Your task to perform on an android device: Open Maps and search for coffee Image 0: 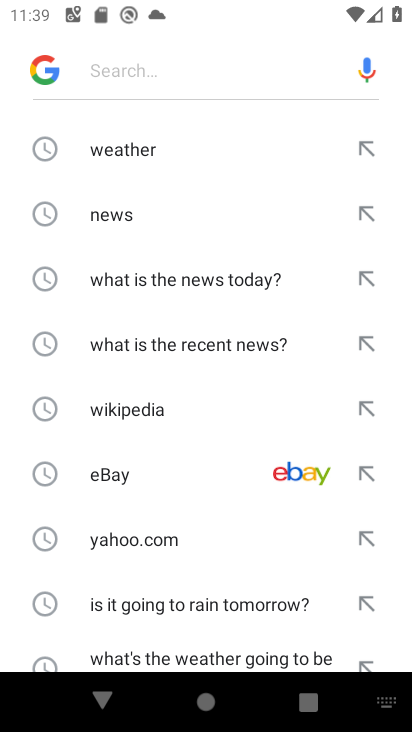
Step 0: press home button
Your task to perform on an android device: Open Maps and search for coffee Image 1: 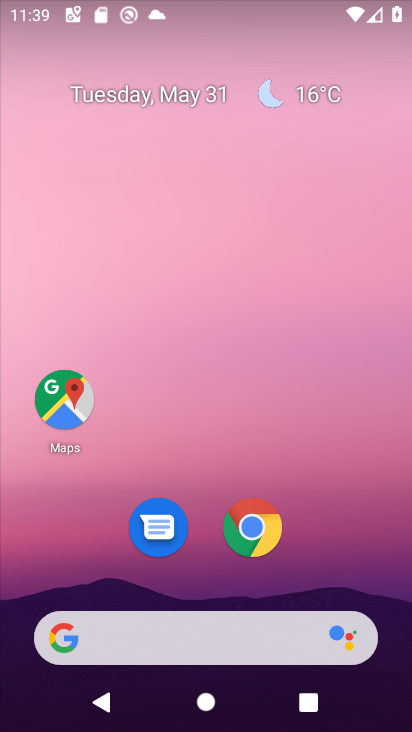
Step 1: click (64, 406)
Your task to perform on an android device: Open Maps and search for coffee Image 2: 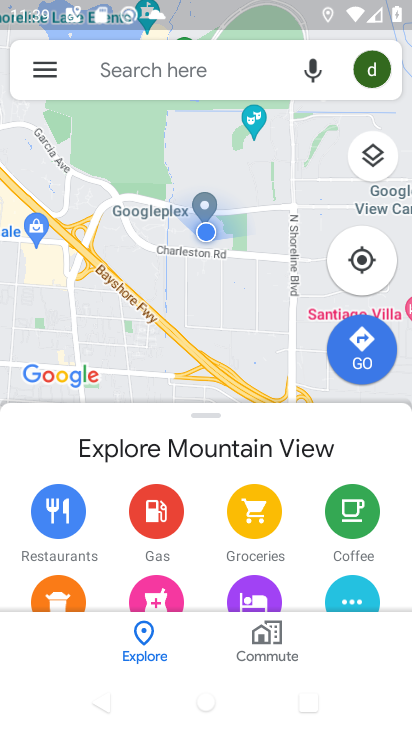
Step 2: click (120, 78)
Your task to perform on an android device: Open Maps and search for coffee Image 3: 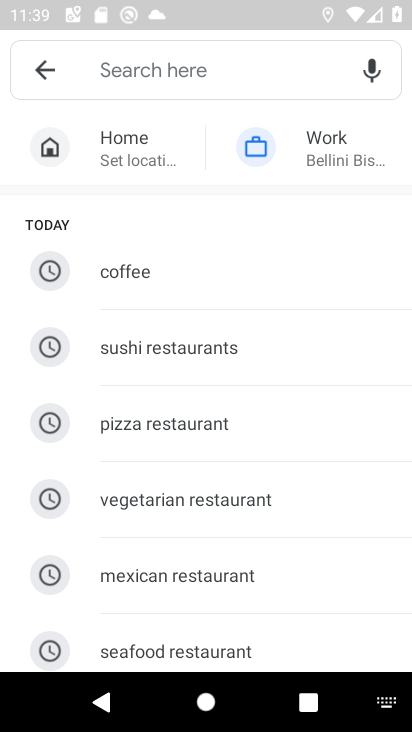
Step 3: click (113, 274)
Your task to perform on an android device: Open Maps and search for coffee Image 4: 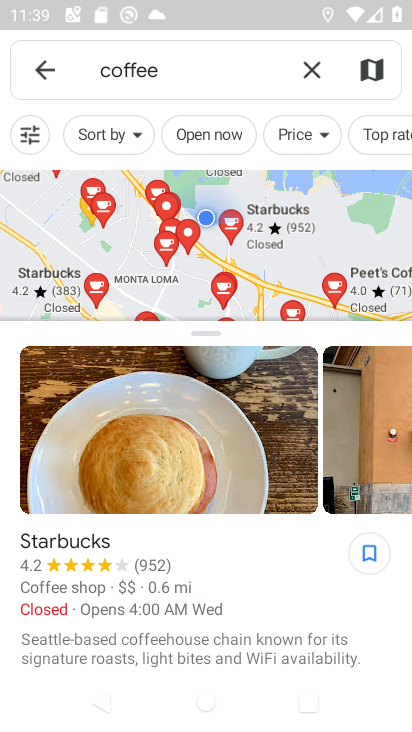
Step 4: task complete